Your task to perform on an android device: What's the weather? Image 0: 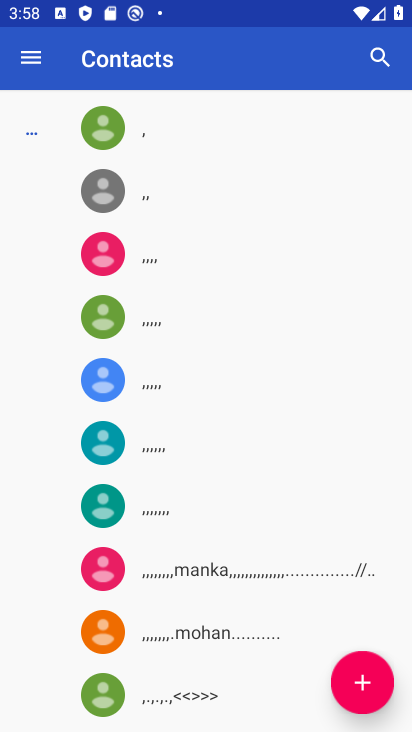
Step 0: press home button
Your task to perform on an android device: What's the weather? Image 1: 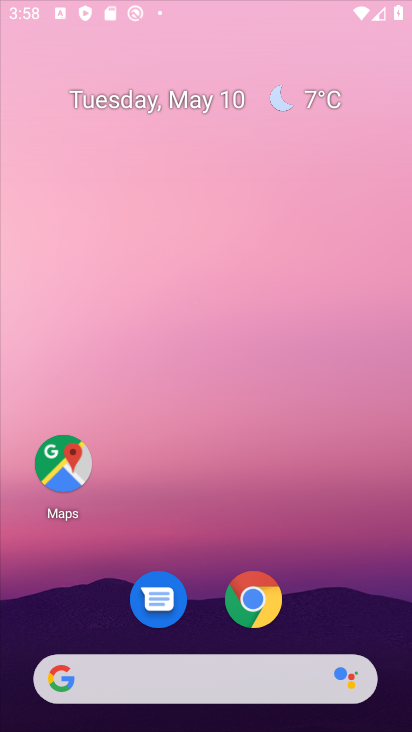
Step 1: drag from (198, 701) to (227, 154)
Your task to perform on an android device: What's the weather? Image 2: 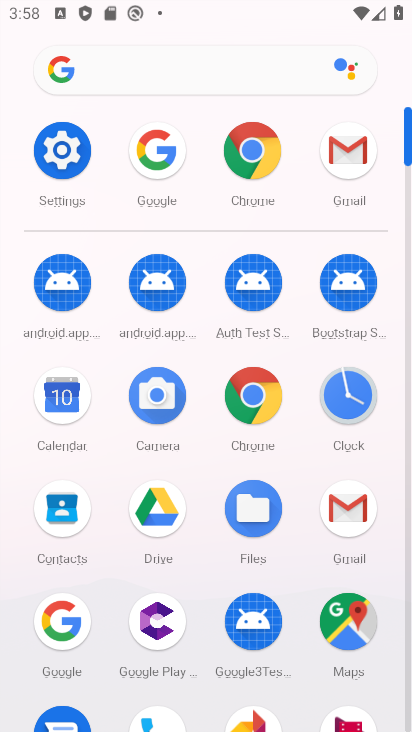
Step 2: click (63, 154)
Your task to perform on an android device: What's the weather? Image 3: 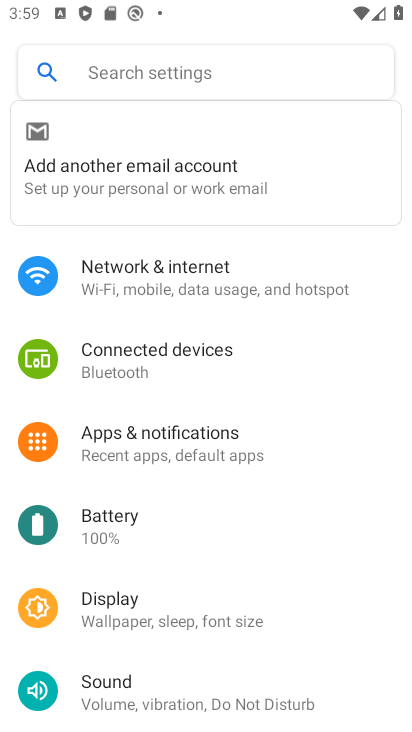
Step 3: drag from (153, 494) to (182, 302)
Your task to perform on an android device: What's the weather? Image 4: 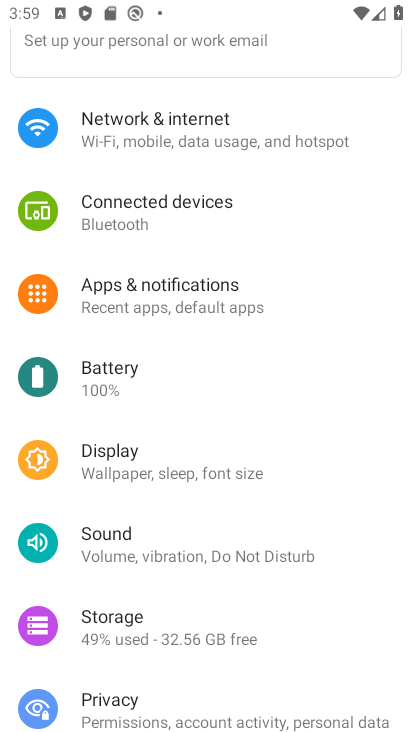
Step 4: press home button
Your task to perform on an android device: What's the weather? Image 5: 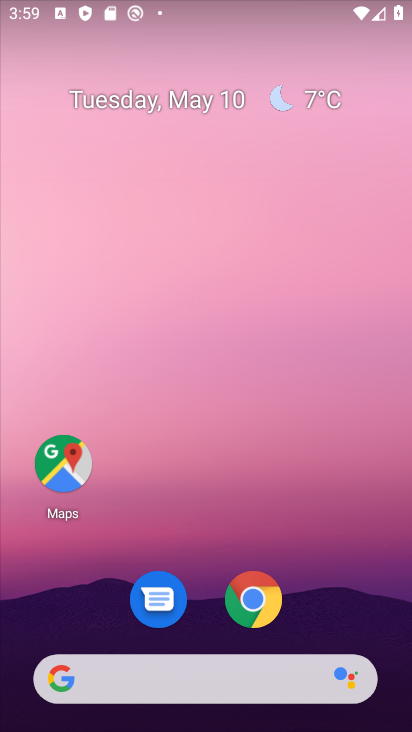
Step 5: drag from (235, 686) to (311, 66)
Your task to perform on an android device: What's the weather? Image 6: 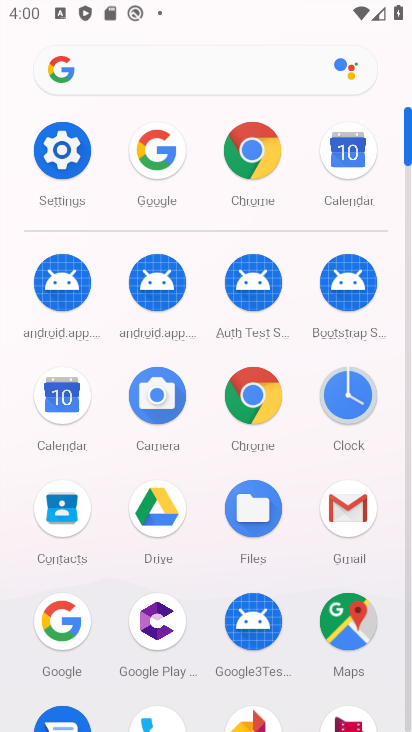
Step 6: drag from (170, 533) to (187, 289)
Your task to perform on an android device: What's the weather? Image 7: 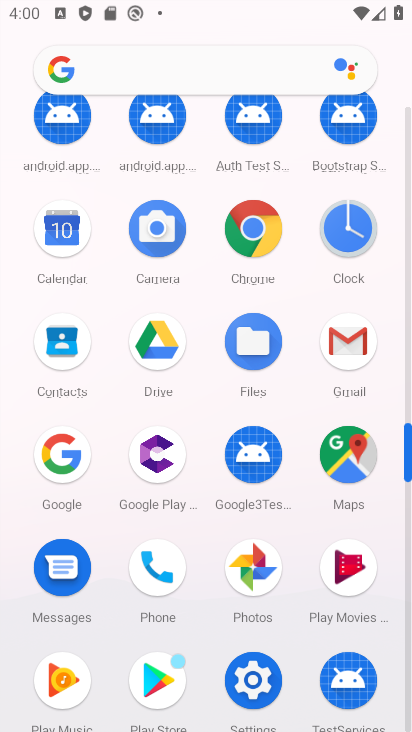
Step 7: click (81, 473)
Your task to perform on an android device: What's the weather? Image 8: 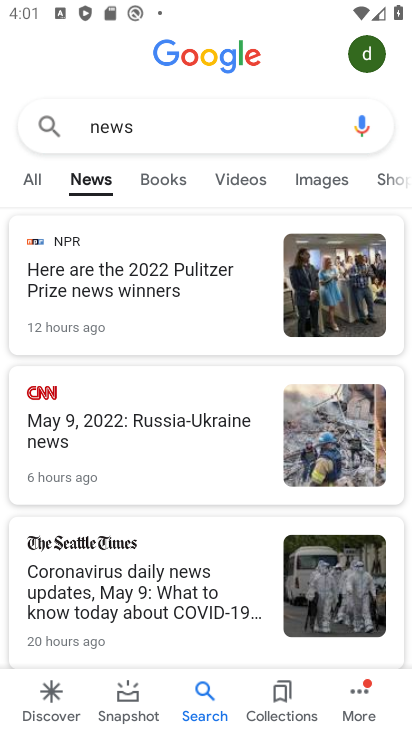
Step 8: click (206, 121)
Your task to perform on an android device: What's the weather? Image 9: 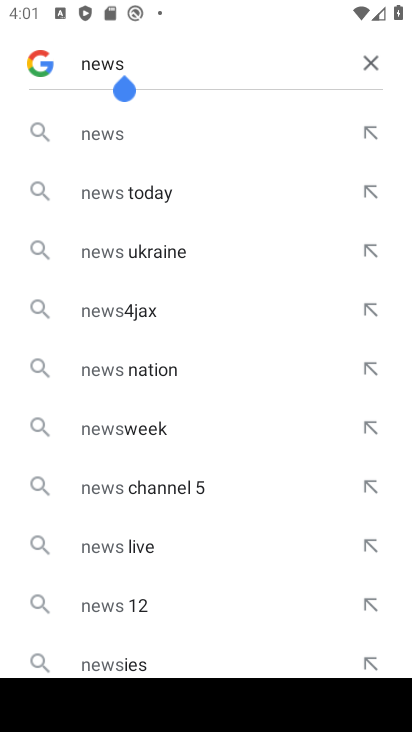
Step 9: click (369, 54)
Your task to perform on an android device: What's the weather? Image 10: 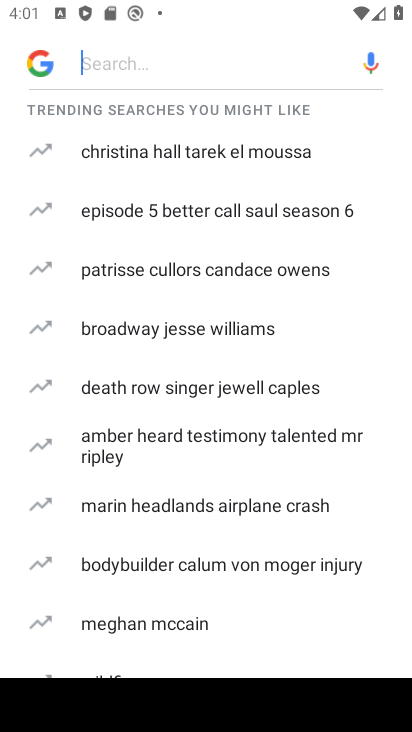
Step 10: type "weather"
Your task to perform on an android device: What's the weather? Image 11: 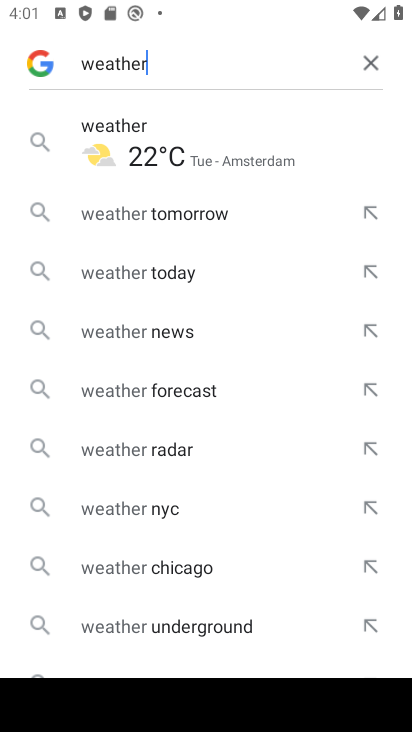
Step 11: click (189, 143)
Your task to perform on an android device: What's the weather? Image 12: 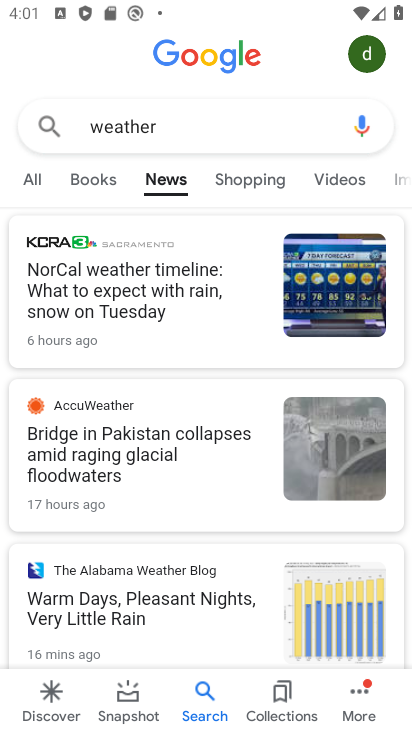
Step 12: task complete